Your task to perform on an android device: Go to CNN.com Image 0: 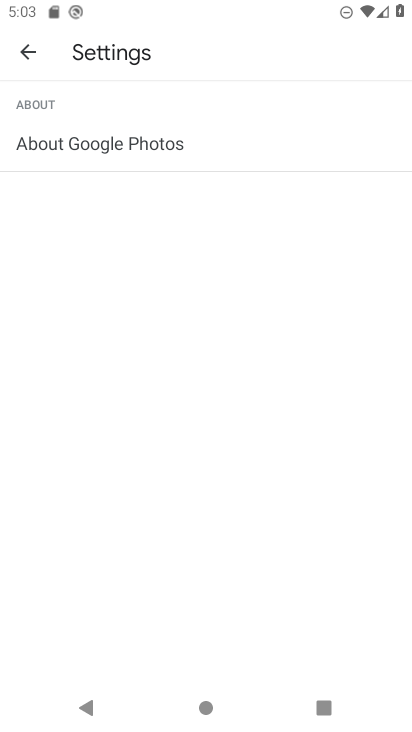
Step 0: press back button
Your task to perform on an android device: Go to CNN.com Image 1: 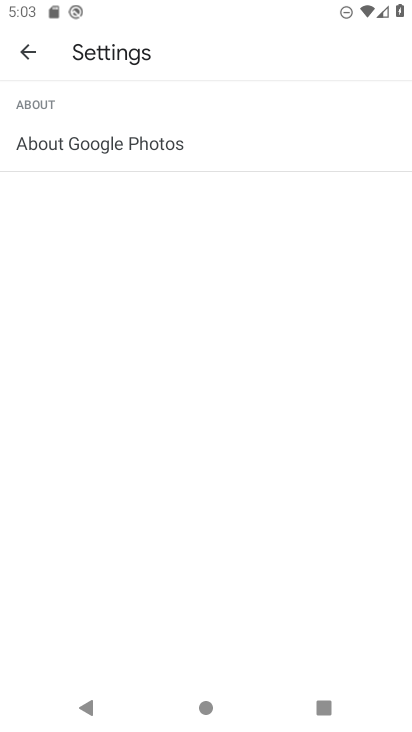
Step 1: click (23, 50)
Your task to perform on an android device: Go to CNN.com Image 2: 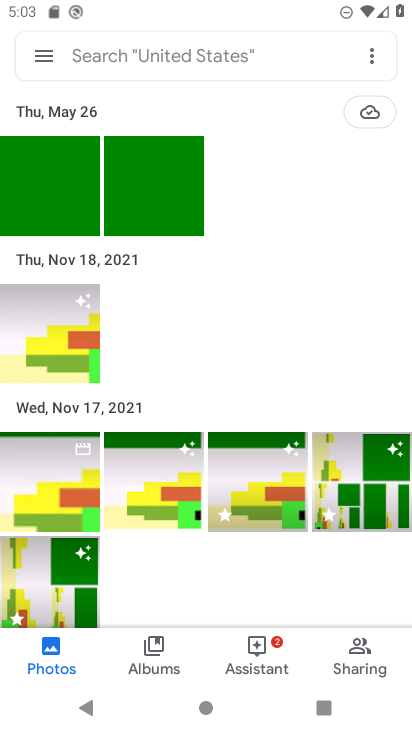
Step 2: press back button
Your task to perform on an android device: Go to CNN.com Image 3: 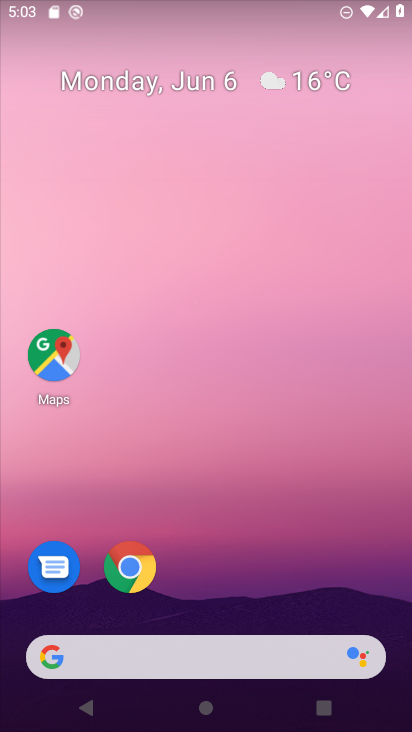
Step 3: drag from (228, 612) to (201, 1)
Your task to perform on an android device: Go to CNN.com Image 4: 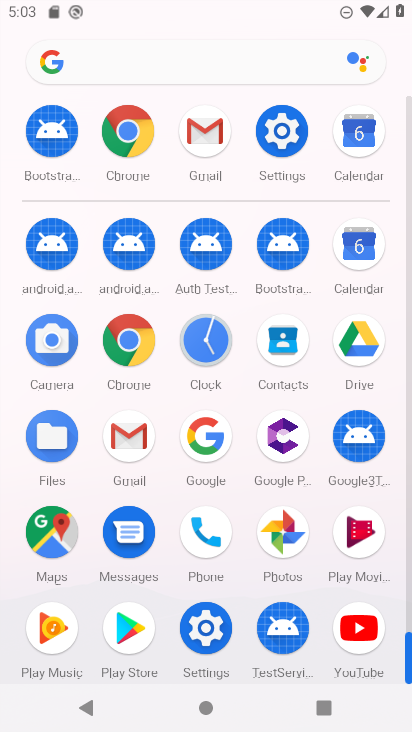
Step 4: click (142, 132)
Your task to perform on an android device: Go to CNN.com Image 5: 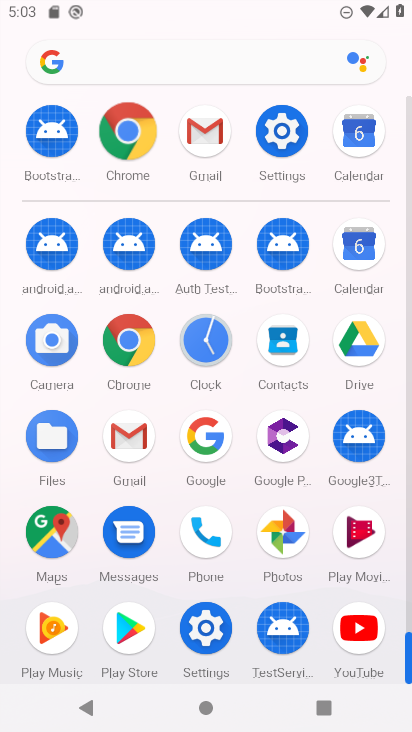
Step 5: click (149, 139)
Your task to perform on an android device: Go to CNN.com Image 6: 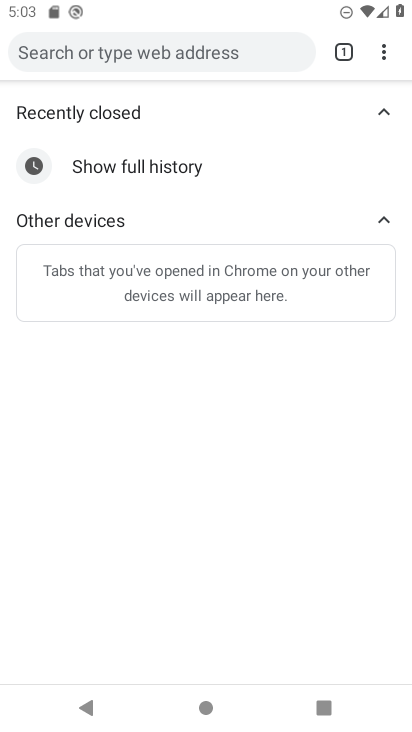
Step 6: click (381, 38)
Your task to perform on an android device: Go to CNN.com Image 7: 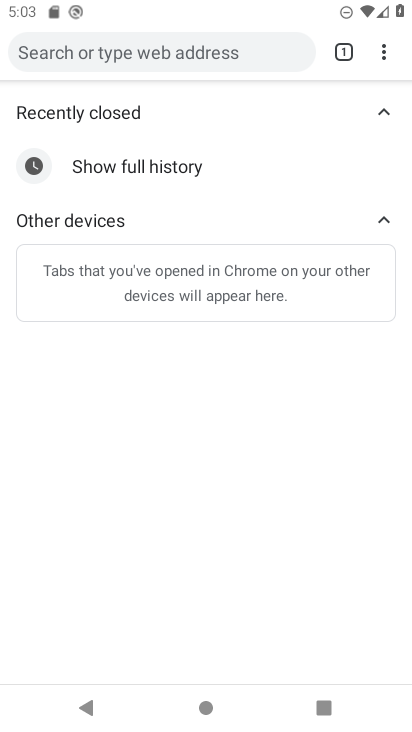
Step 7: click (65, 50)
Your task to perform on an android device: Go to CNN.com Image 8: 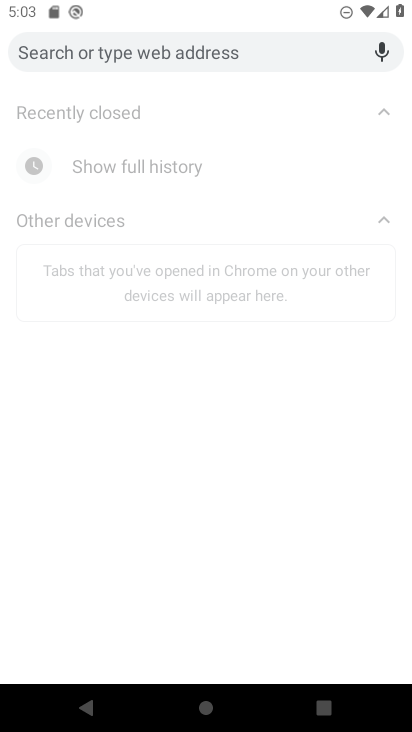
Step 8: click (387, 58)
Your task to perform on an android device: Go to CNN.com Image 9: 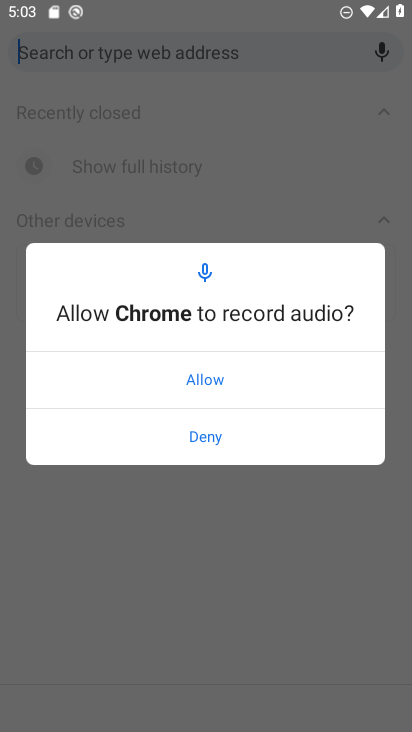
Step 9: click (195, 372)
Your task to perform on an android device: Go to CNN.com Image 10: 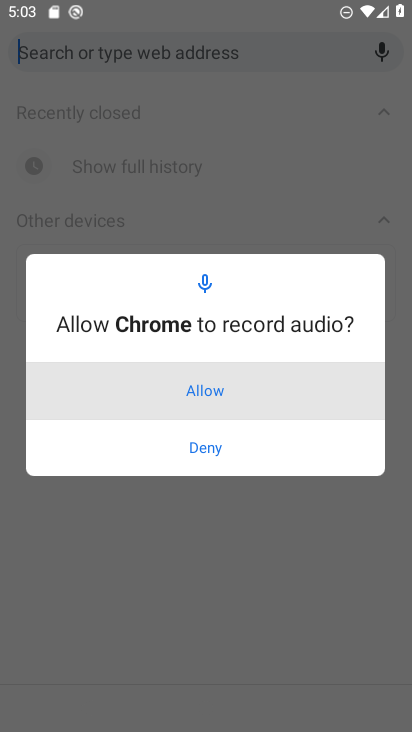
Step 10: click (207, 146)
Your task to perform on an android device: Go to CNN.com Image 11: 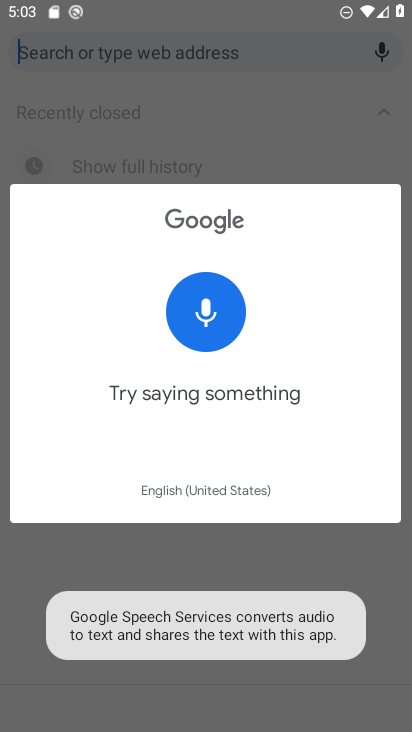
Step 11: press back button
Your task to perform on an android device: Go to CNN.com Image 12: 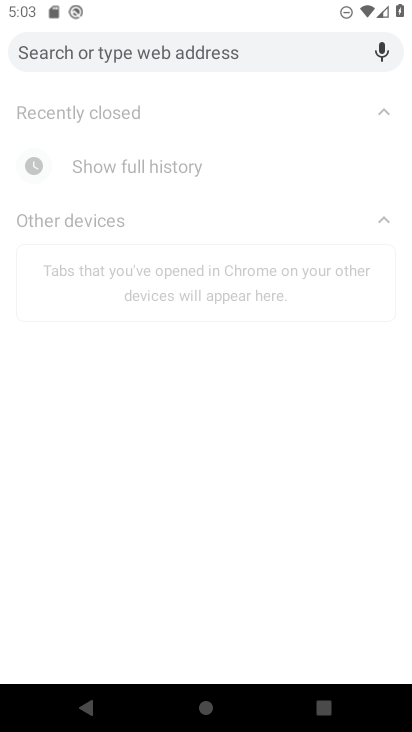
Step 12: press home button
Your task to perform on an android device: Go to CNN.com Image 13: 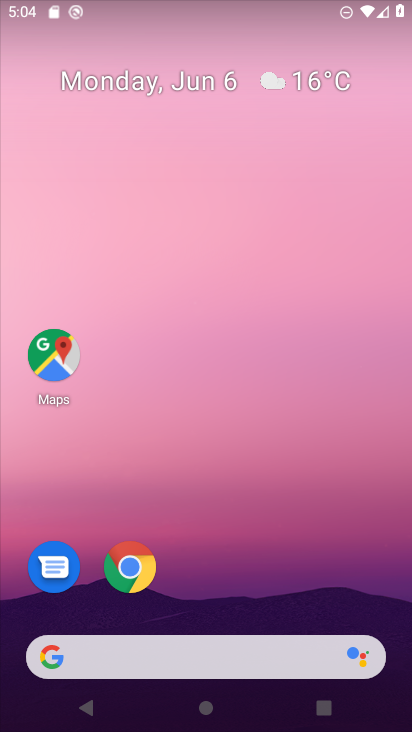
Step 13: drag from (240, 697) to (97, 0)
Your task to perform on an android device: Go to CNN.com Image 14: 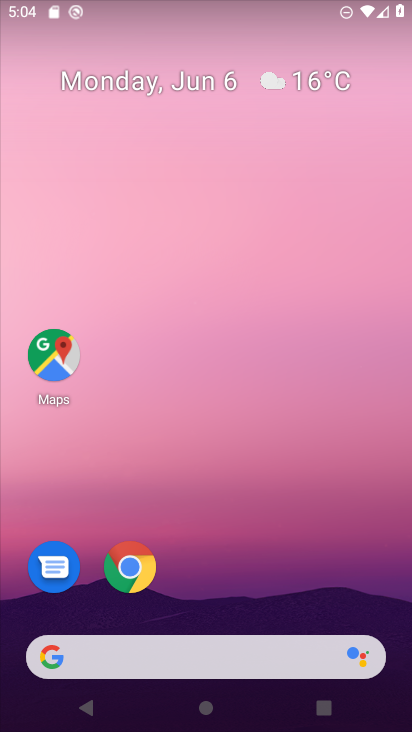
Step 14: drag from (264, 635) to (197, 129)
Your task to perform on an android device: Go to CNN.com Image 15: 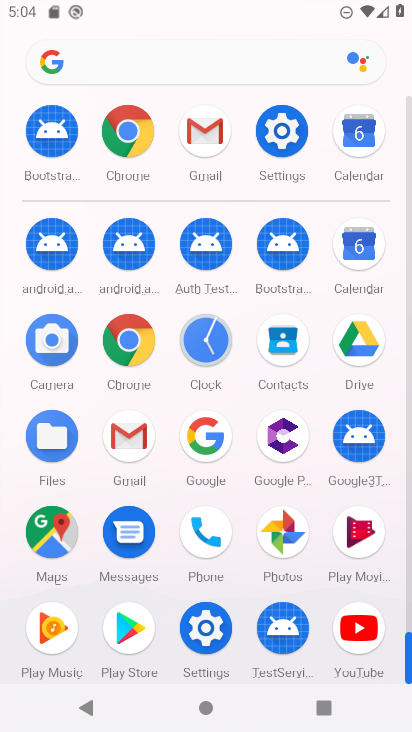
Step 15: click (133, 120)
Your task to perform on an android device: Go to CNN.com Image 16: 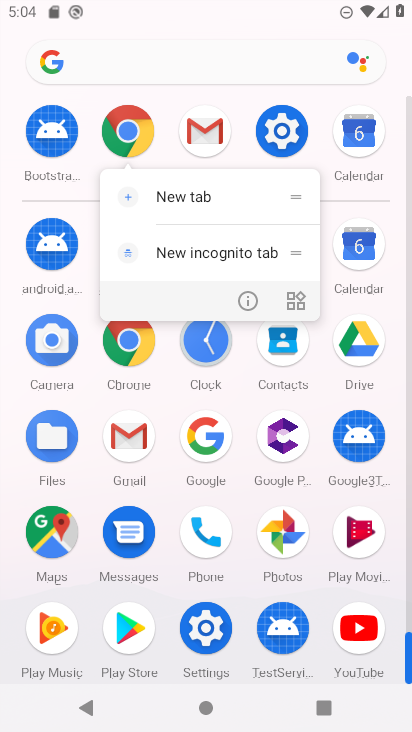
Step 16: click (194, 199)
Your task to perform on an android device: Go to CNN.com Image 17: 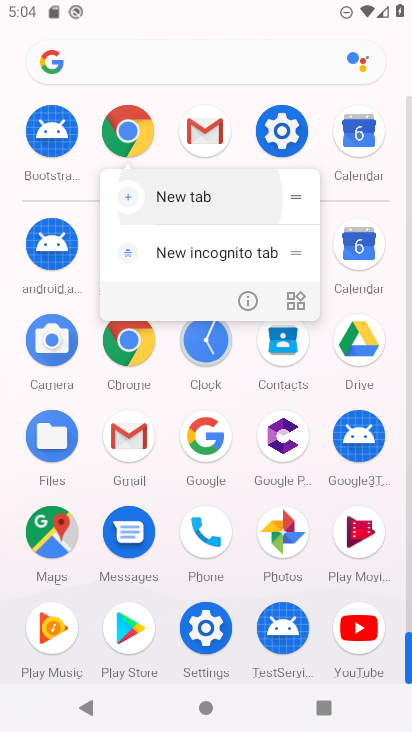
Step 17: click (194, 199)
Your task to perform on an android device: Go to CNN.com Image 18: 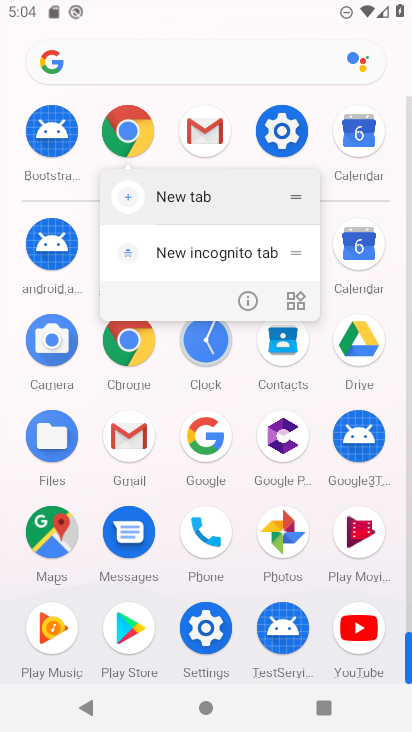
Step 18: click (194, 199)
Your task to perform on an android device: Go to CNN.com Image 19: 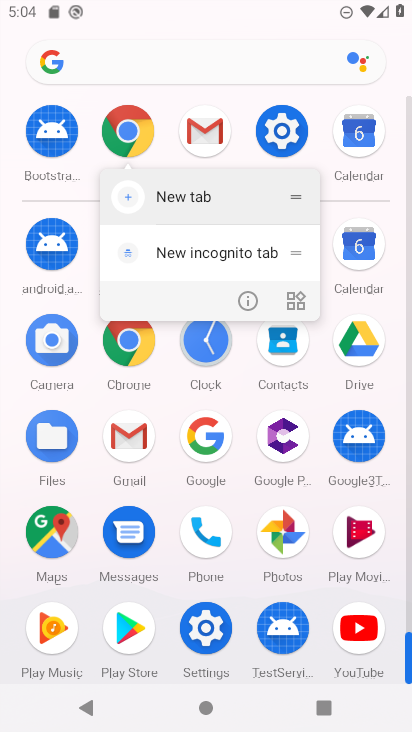
Step 19: click (194, 199)
Your task to perform on an android device: Go to CNN.com Image 20: 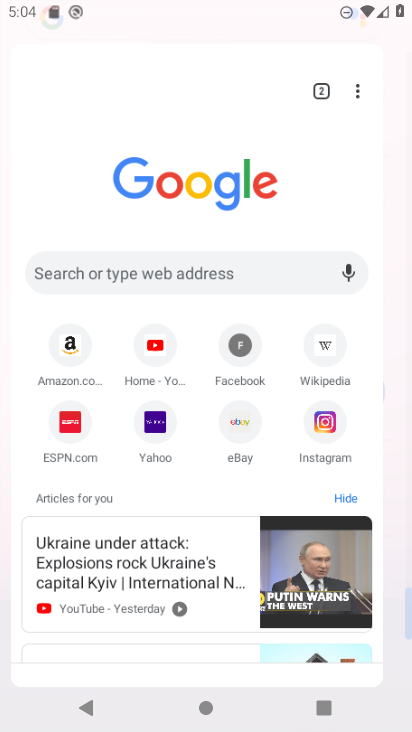
Step 20: click (194, 199)
Your task to perform on an android device: Go to CNN.com Image 21: 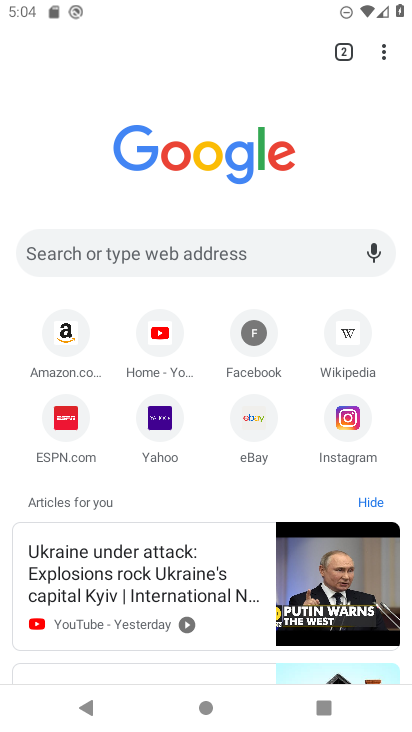
Step 21: click (87, 256)
Your task to perform on an android device: Go to CNN.com Image 22: 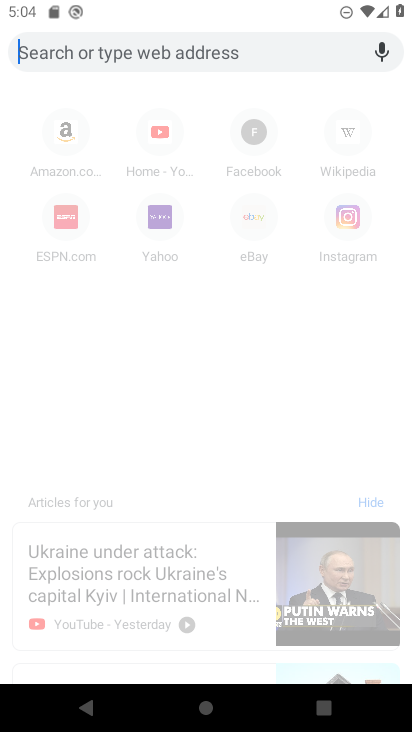
Step 22: type "cnn.com"
Your task to perform on an android device: Go to CNN.com Image 23: 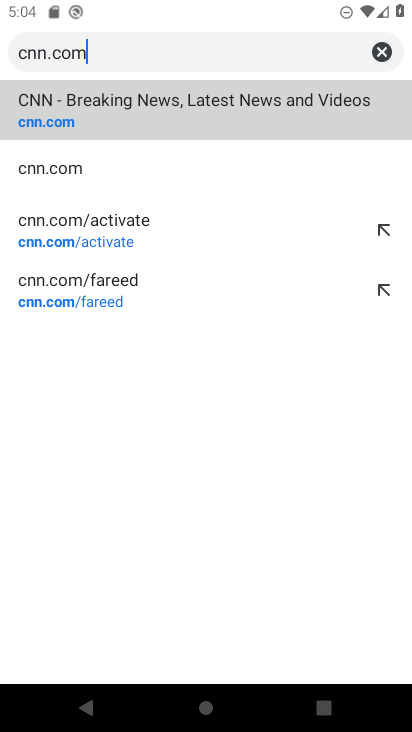
Step 23: click (77, 117)
Your task to perform on an android device: Go to CNN.com Image 24: 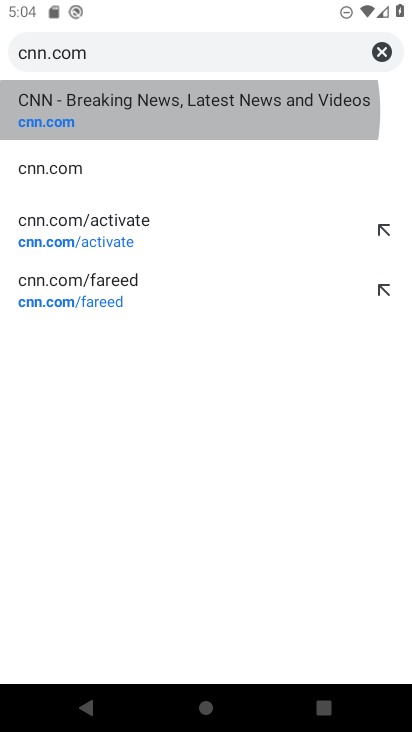
Step 24: click (76, 118)
Your task to perform on an android device: Go to CNN.com Image 25: 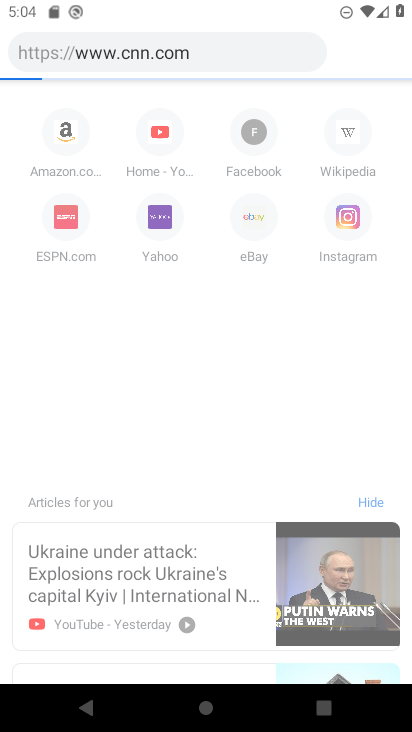
Step 25: click (76, 118)
Your task to perform on an android device: Go to CNN.com Image 26: 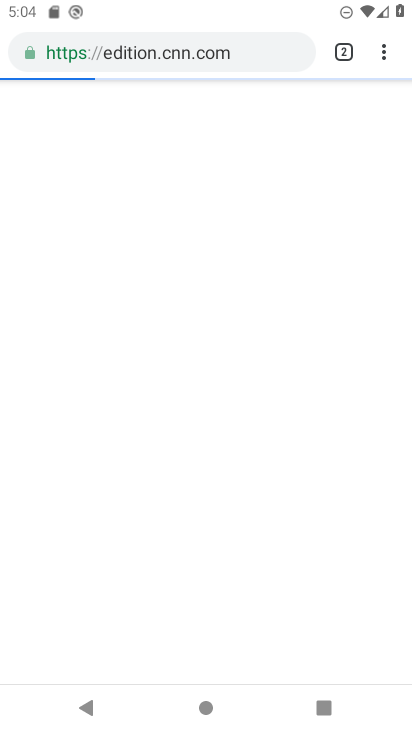
Step 26: click (77, 118)
Your task to perform on an android device: Go to CNN.com Image 27: 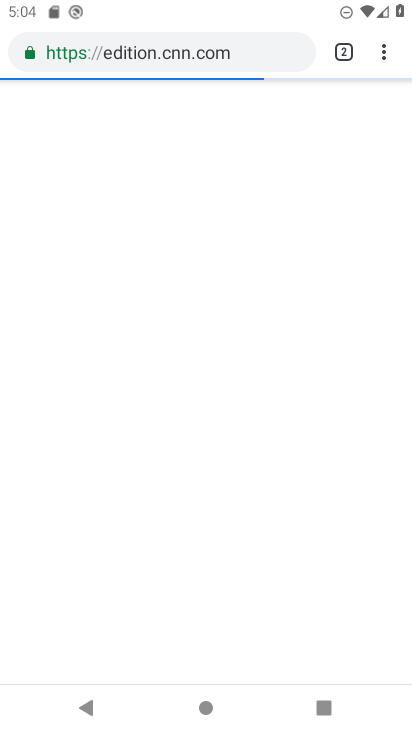
Step 27: task complete